Your task to perform on an android device: Open maps Image 0: 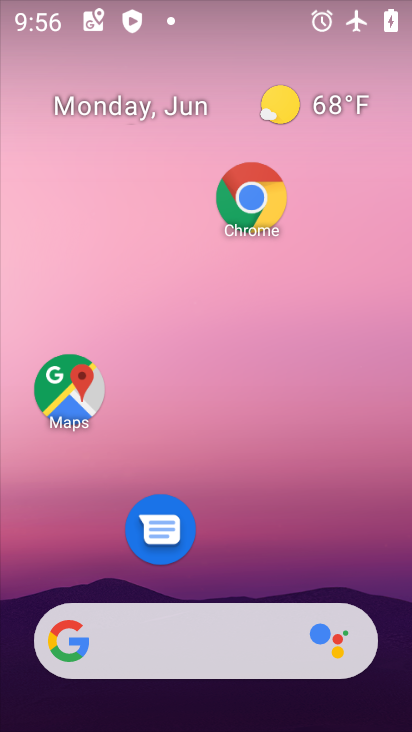
Step 0: click (63, 404)
Your task to perform on an android device: Open maps Image 1: 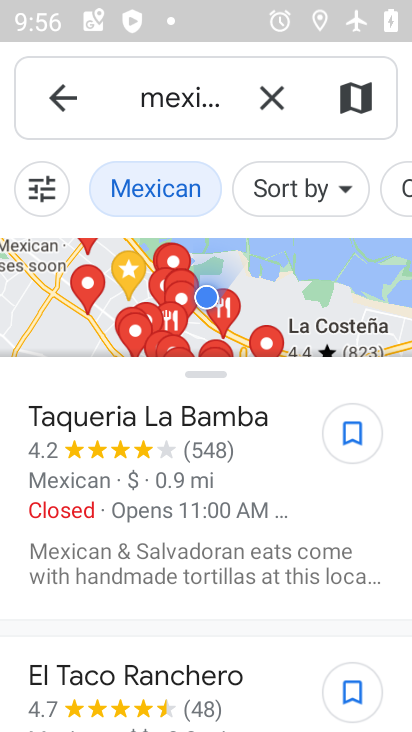
Step 1: task complete